Your task to perform on an android device: Go to Wikipedia Image 0: 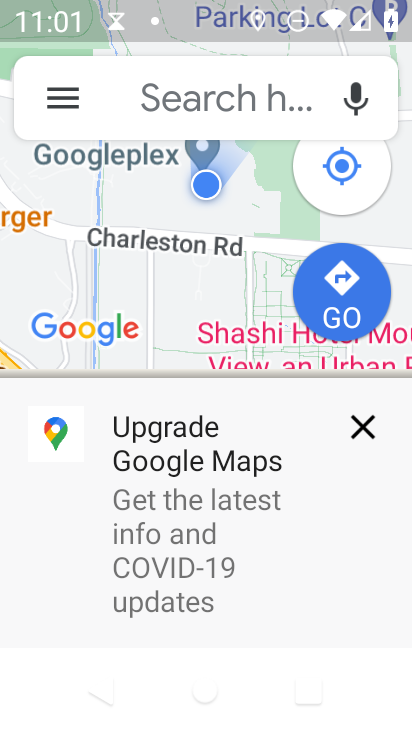
Step 0: press home button
Your task to perform on an android device: Go to Wikipedia Image 1: 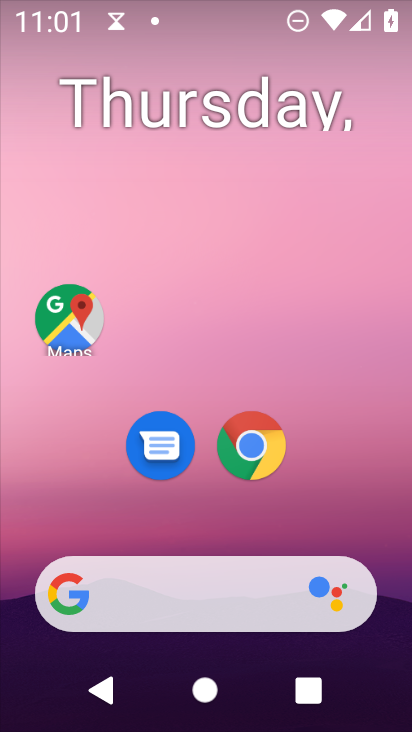
Step 1: click (254, 454)
Your task to perform on an android device: Go to Wikipedia Image 2: 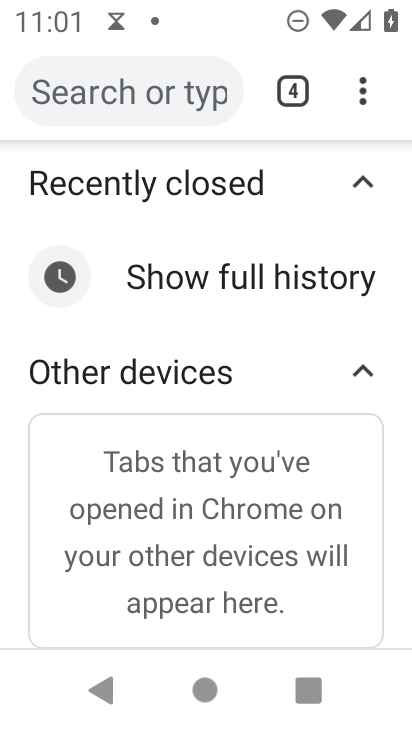
Step 2: click (365, 104)
Your task to perform on an android device: Go to Wikipedia Image 3: 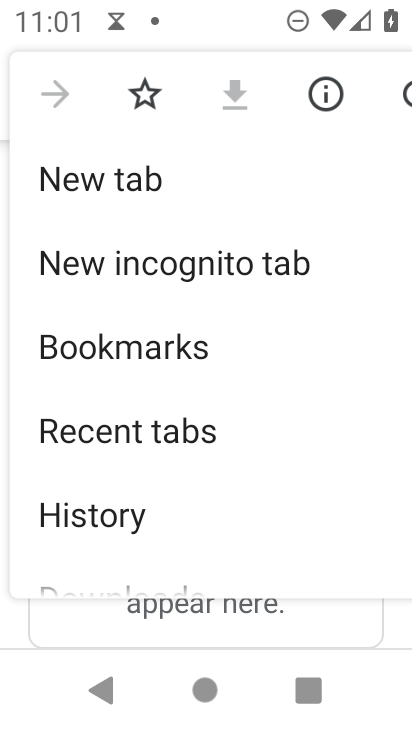
Step 3: click (97, 181)
Your task to perform on an android device: Go to Wikipedia Image 4: 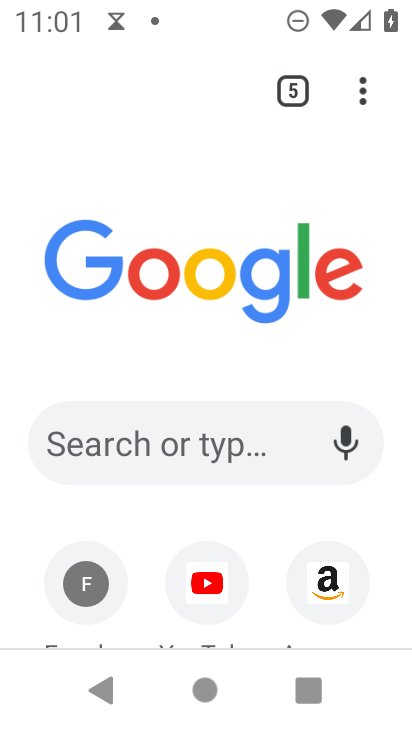
Step 4: drag from (264, 620) to (266, 332)
Your task to perform on an android device: Go to Wikipedia Image 5: 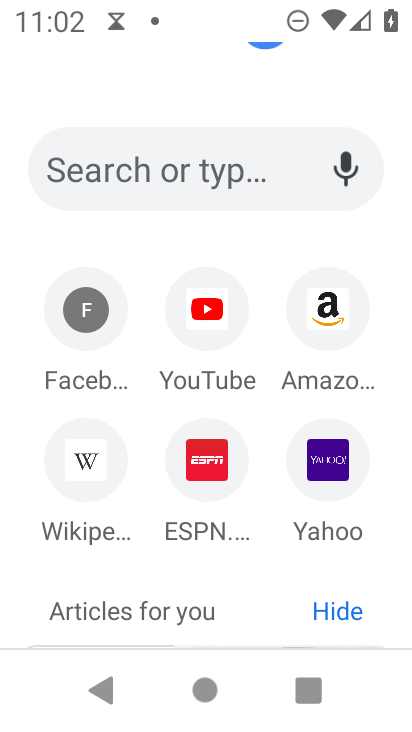
Step 5: drag from (137, 631) to (136, 126)
Your task to perform on an android device: Go to Wikipedia Image 6: 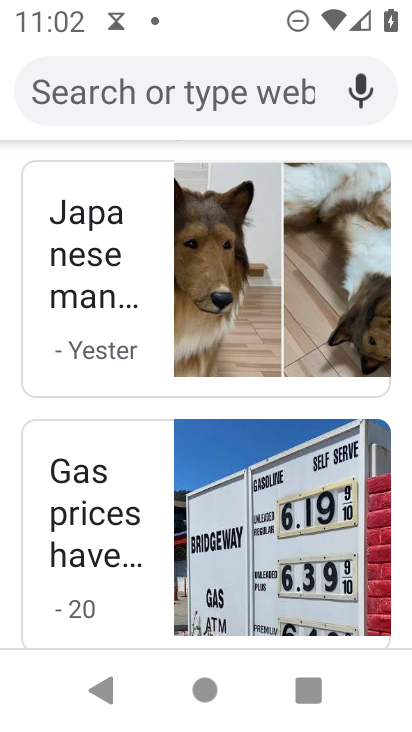
Step 6: drag from (134, 145) to (132, 503)
Your task to perform on an android device: Go to Wikipedia Image 7: 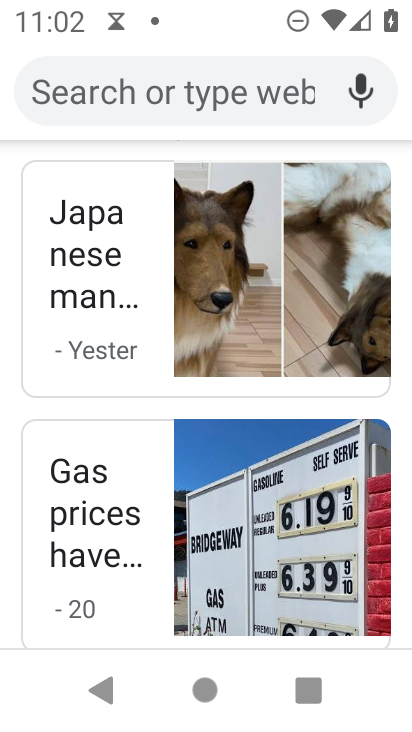
Step 7: drag from (11, 149) to (19, 465)
Your task to perform on an android device: Go to Wikipedia Image 8: 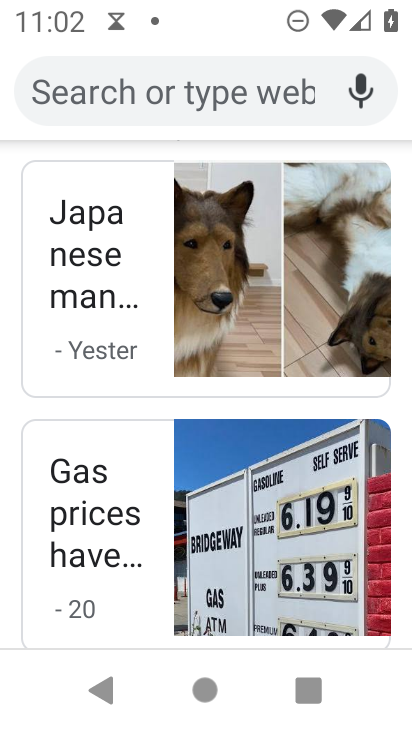
Step 8: click (169, 97)
Your task to perform on an android device: Go to Wikipedia Image 9: 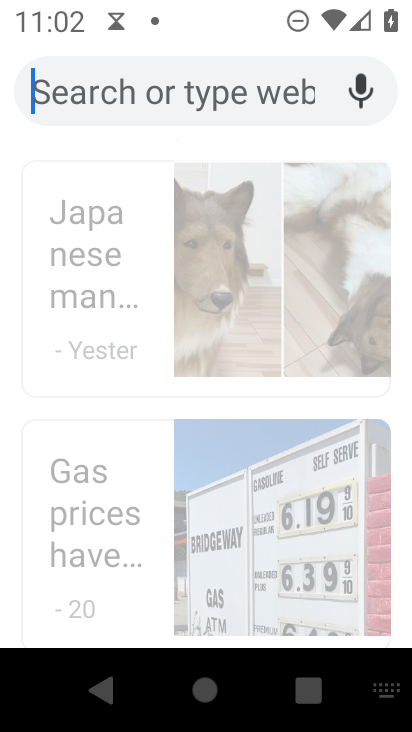
Step 9: type "Wikipedia"
Your task to perform on an android device: Go to Wikipedia Image 10: 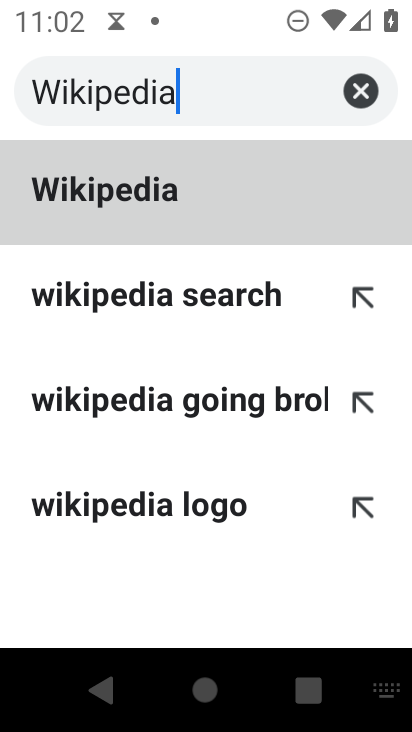
Step 10: click (202, 181)
Your task to perform on an android device: Go to Wikipedia Image 11: 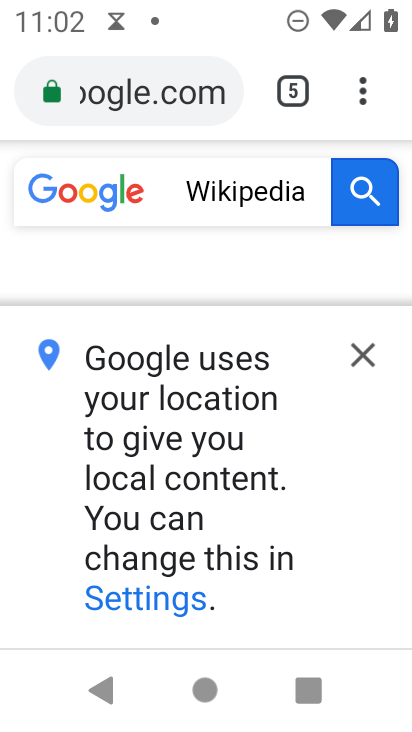
Step 11: click (360, 360)
Your task to perform on an android device: Go to Wikipedia Image 12: 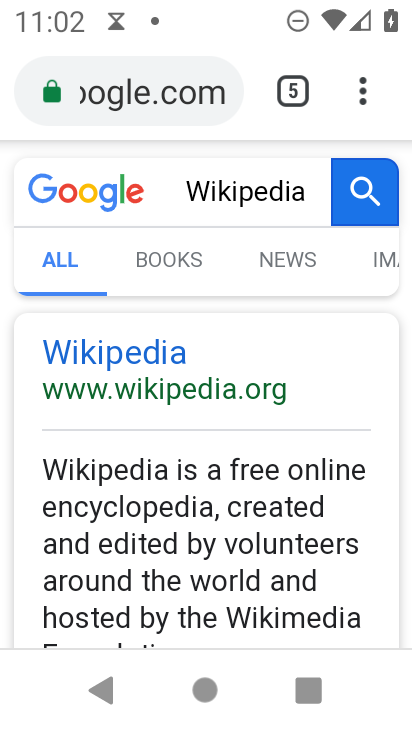
Step 12: click (127, 348)
Your task to perform on an android device: Go to Wikipedia Image 13: 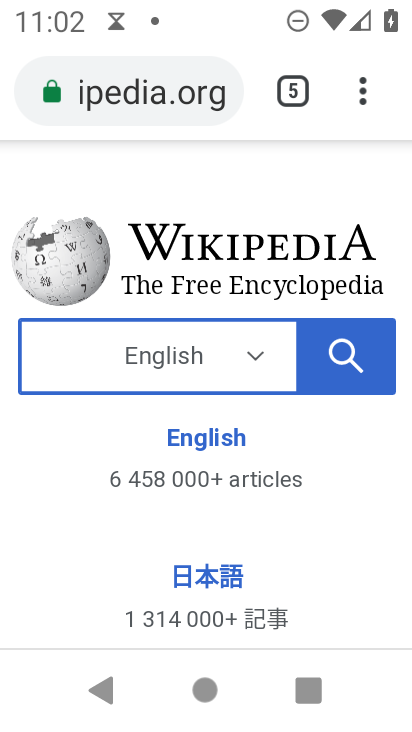
Step 13: task complete